Your task to perform on an android device: toggle improve location accuracy Image 0: 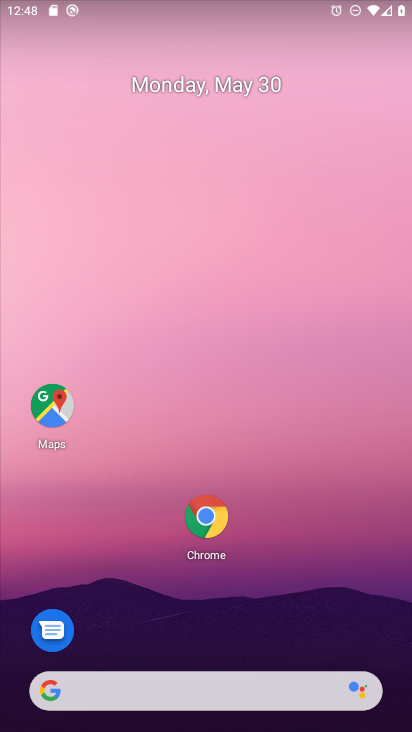
Step 0: press home button
Your task to perform on an android device: toggle improve location accuracy Image 1: 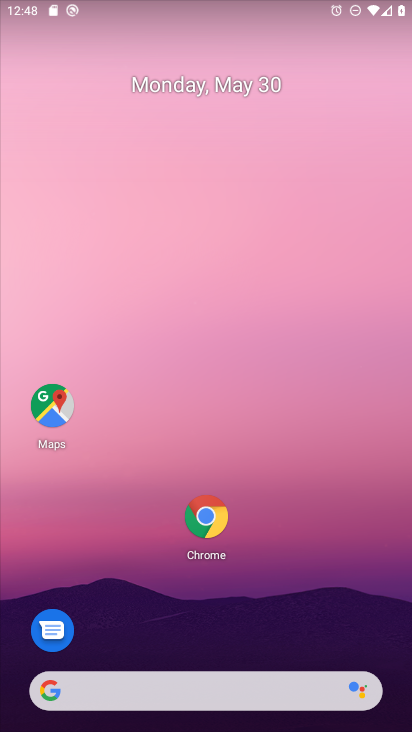
Step 1: drag from (170, 694) to (371, 12)
Your task to perform on an android device: toggle improve location accuracy Image 2: 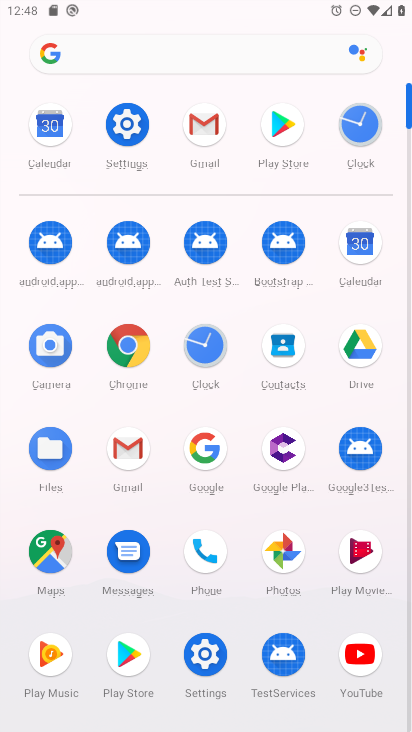
Step 2: click (124, 123)
Your task to perform on an android device: toggle improve location accuracy Image 3: 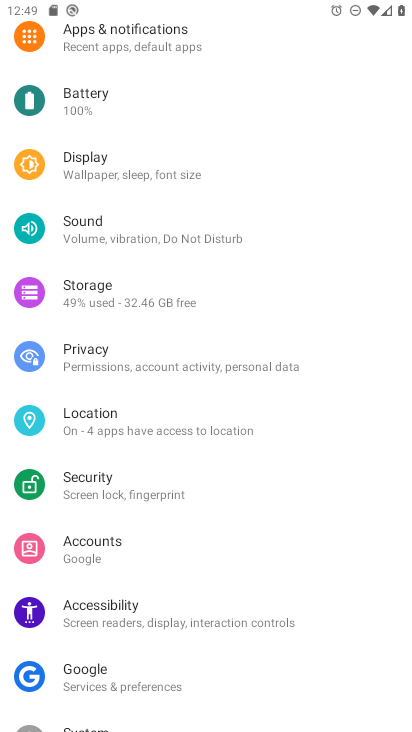
Step 3: click (115, 420)
Your task to perform on an android device: toggle improve location accuracy Image 4: 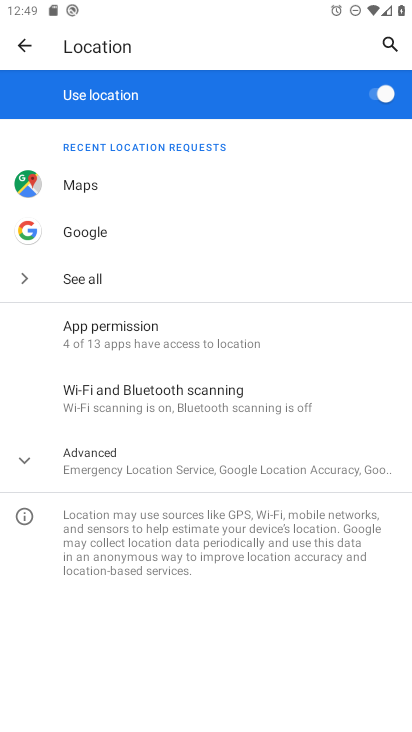
Step 4: click (96, 443)
Your task to perform on an android device: toggle improve location accuracy Image 5: 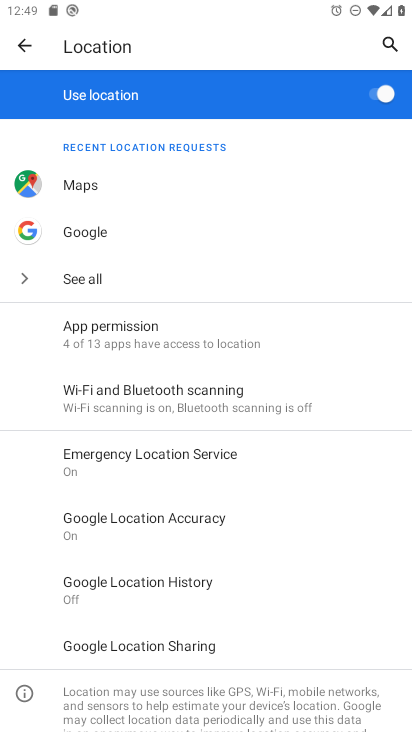
Step 5: click (146, 521)
Your task to perform on an android device: toggle improve location accuracy Image 6: 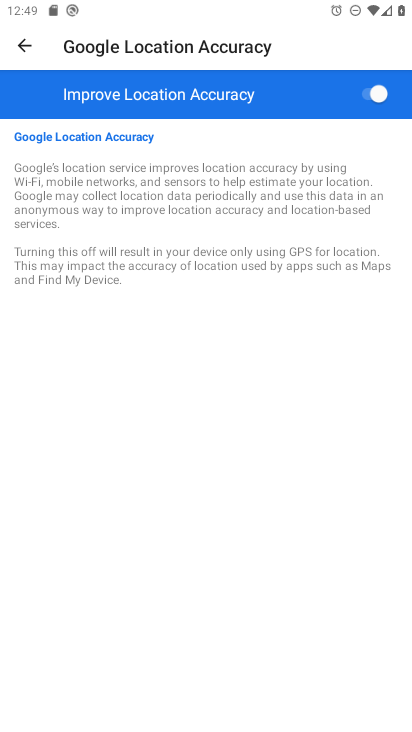
Step 6: click (369, 97)
Your task to perform on an android device: toggle improve location accuracy Image 7: 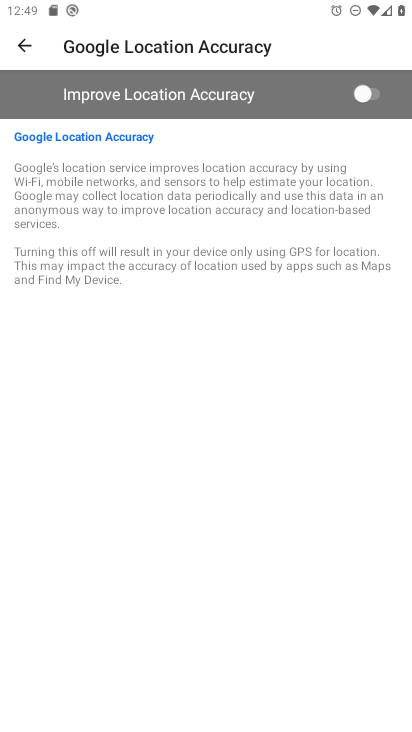
Step 7: task complete